Your task to perform on an android device: clear history in the chrome app Image 0: 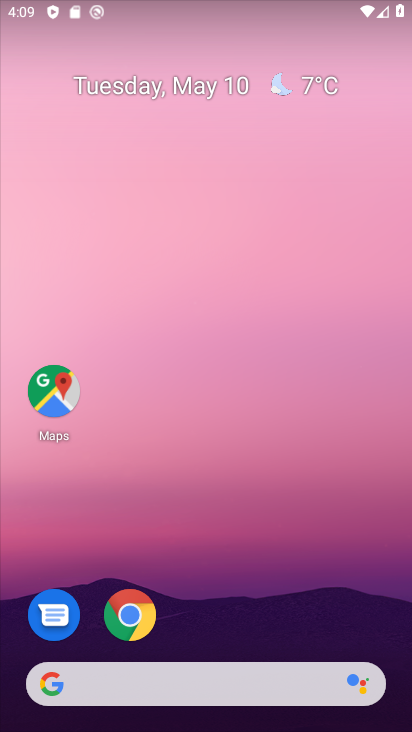
Step 0: drag from (223, 516) to (204, 4)
Your task to perform on an android device: clear history in the chrome app Image 1: 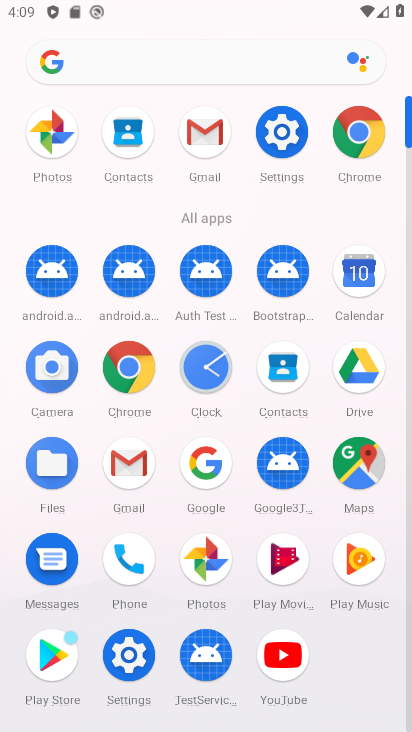
Step 1: click (131, 365)
Your task to perform on an android device: clear history in the chrome app Image 2: 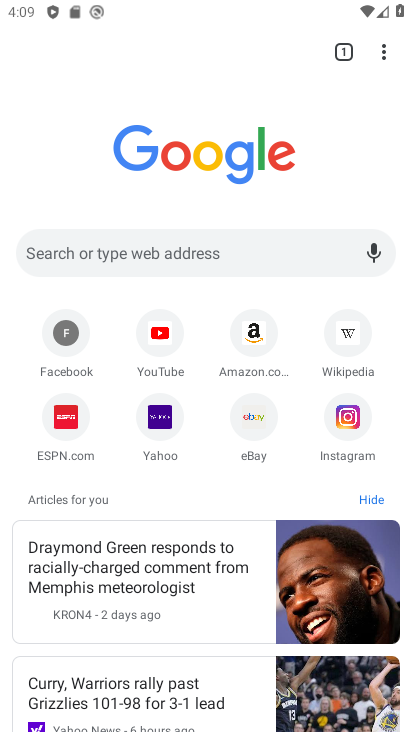
Step 2: drag from (388, 49) to (220, 490)
Your task to perform on an android device: clear history in the chrome app Image 3: 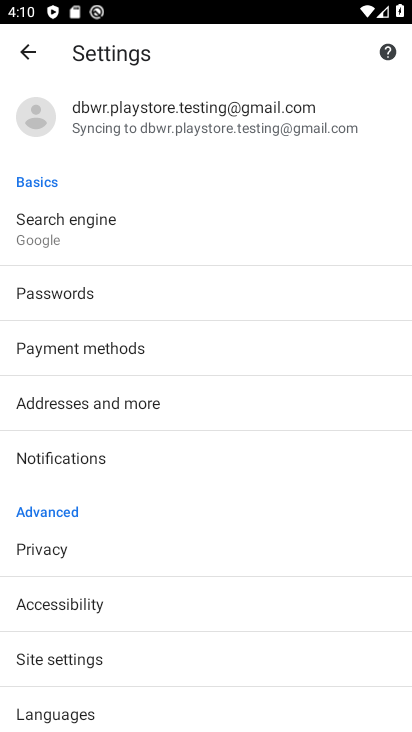
Step 3: drag from (179, 532) to (258, 169)
Your task to perform on an android device: clear history in the chrome app Image 4: 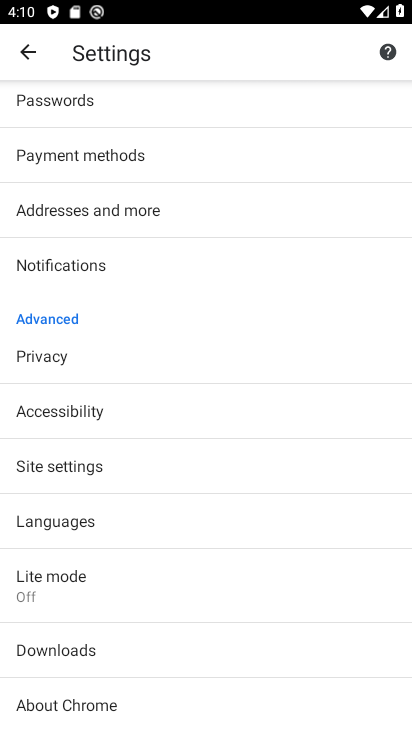
Step 4: drag from (194, 137) to (189, 572)
Your task to perform on an android device: clear history in the chrome app Image 5: 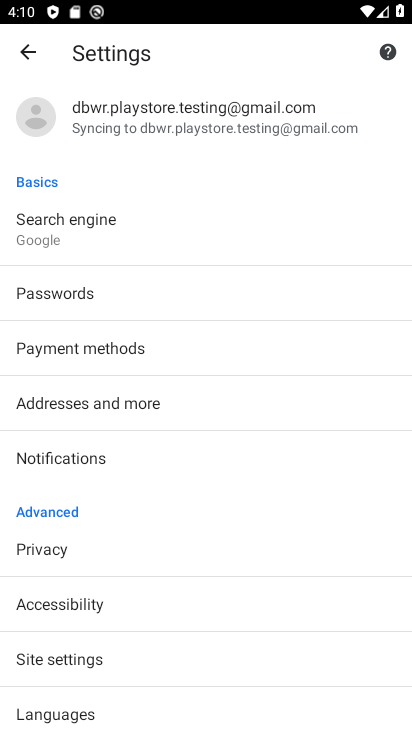
Step 5: click (19, 48)
Your task to perform on an android device: clear history in the chrome app Image 6: 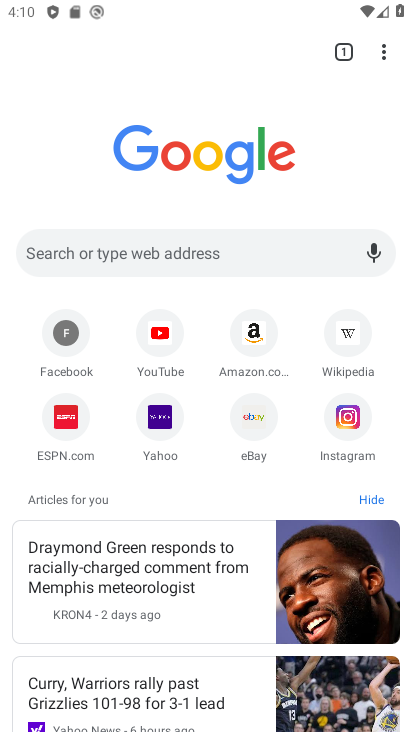
Step 6: drag from (386, 54) to (227, 342)
Your task to perform on an android device: clear history in the chrome app Image 7: 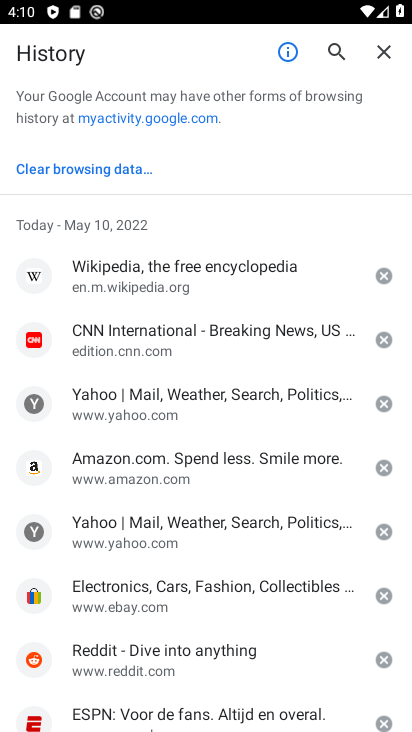
Step 7: click (84, 171)
Your task to perform on an android device: clear history in the chrome app Image 8: 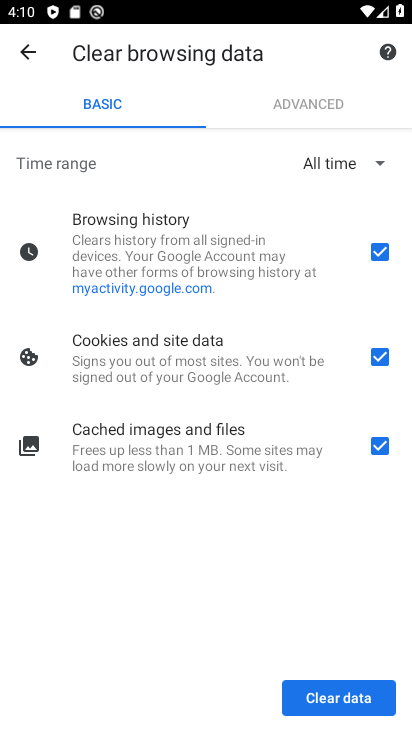
Step 8: click (359, 700)
Your task to perform on an android device: clear history in the chrome app Image 9: 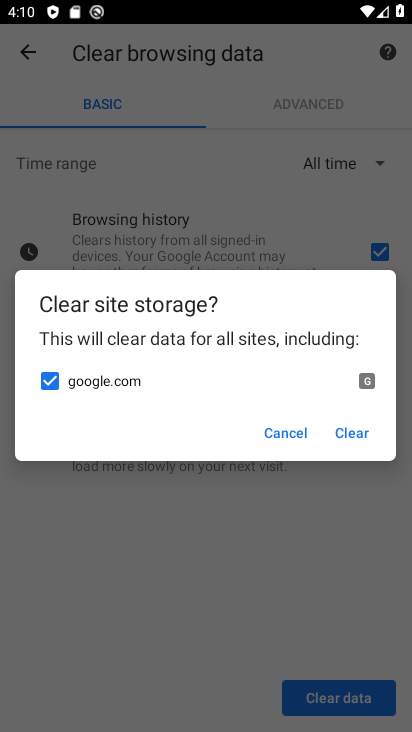
Step 9: click (363, 426)
Your task to perform on an android device: clear history in the chrome app Image 10: 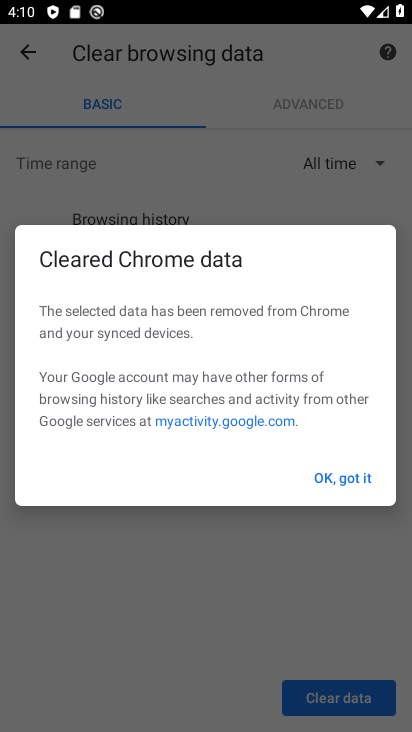
Step 10: click (354, 480)
Your task to perform on an android device: clear history in the chrome app Image 11: 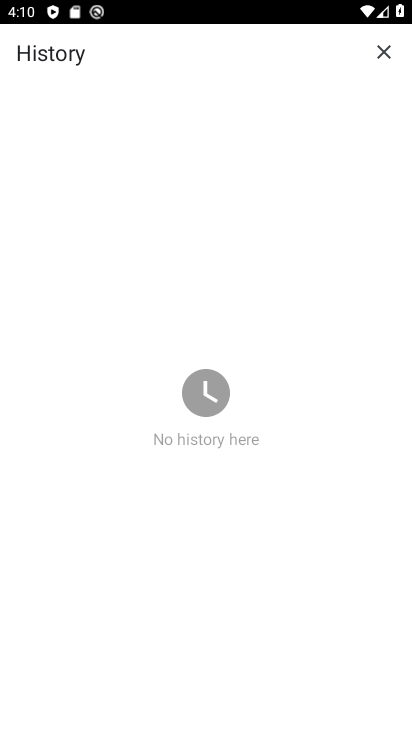
Step 11: task complete